Your task to perform on an android device: Go to network settings Image 0: 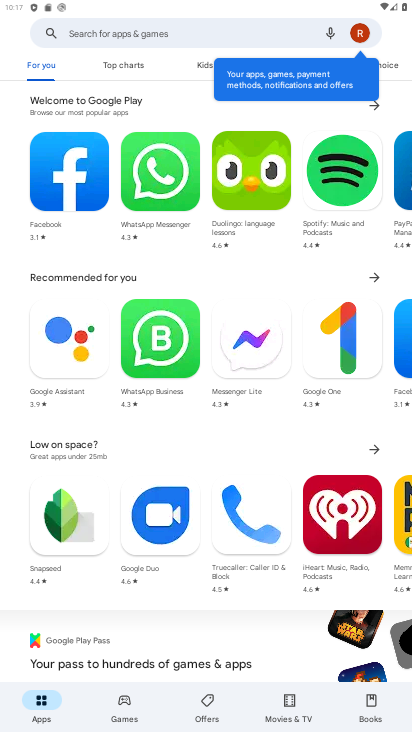
Step 0: press home button
Your task to perform on an android device: Go to network settings Image 1: 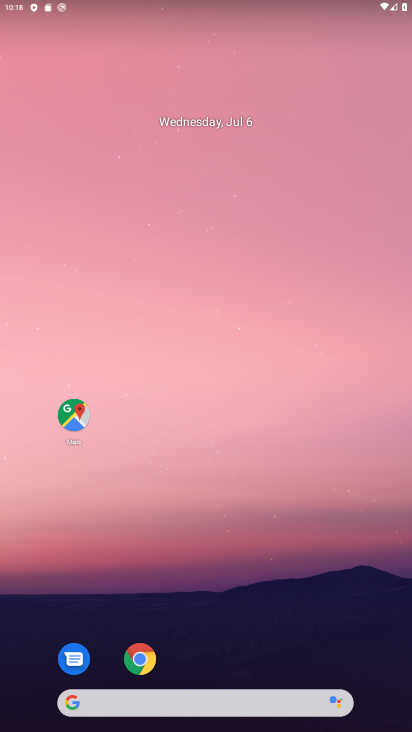
Step 1: drag from (242, 663) to (263, 59)
Your task to perform on an android device: Go to network settings Image 2: 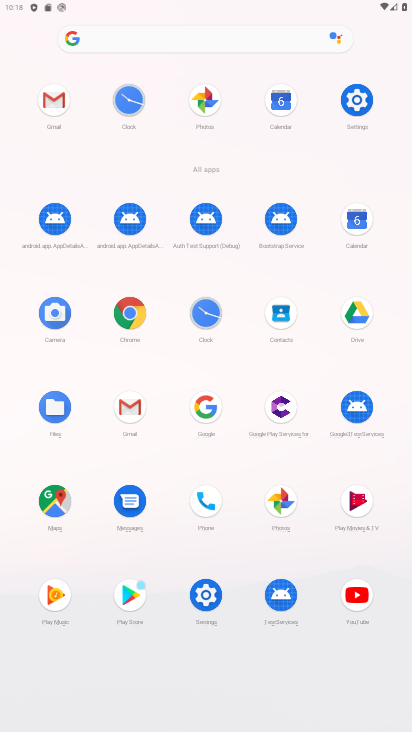
Step 2: click (352, 98)
Your task to perform on an android device: Go to network settings Image 3: 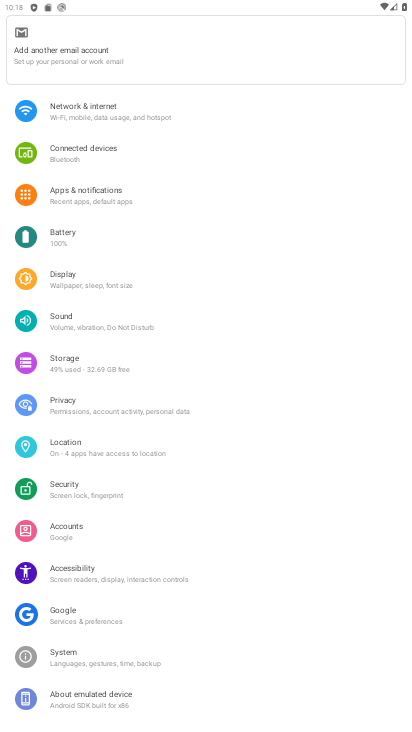
Step 3: click (105, 107)
Your task to perform on an android device: Go to network settings Image 4: 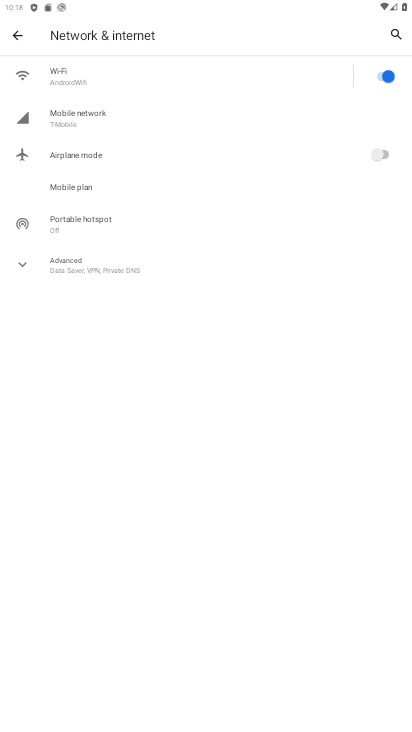
Step 4: click (34, 263)
Your task to perform on an android device: Go to network settings Image 5: 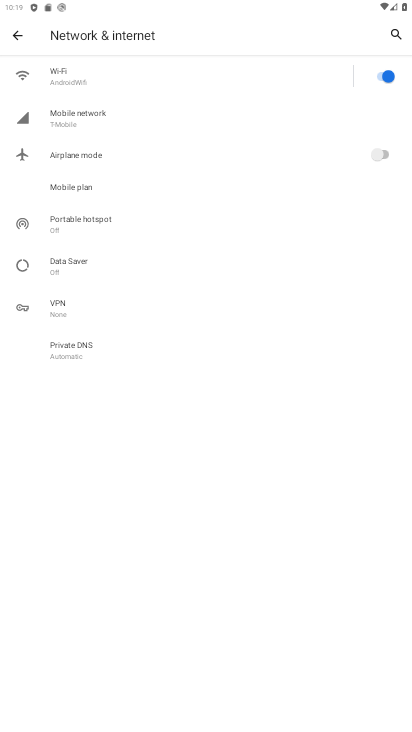
Step 5: task complete